Your task to perform on an android device: Go to settings Image 0: 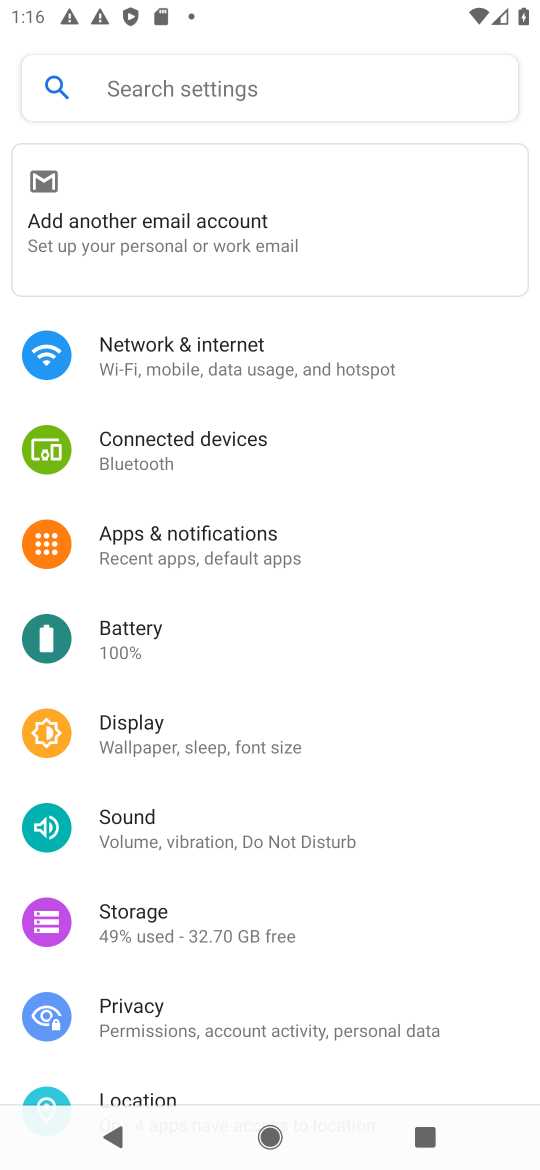
Step 0: drag from (305, 929) to (340, 452)
Your task to perform on an android device: Go to settings Image 1: 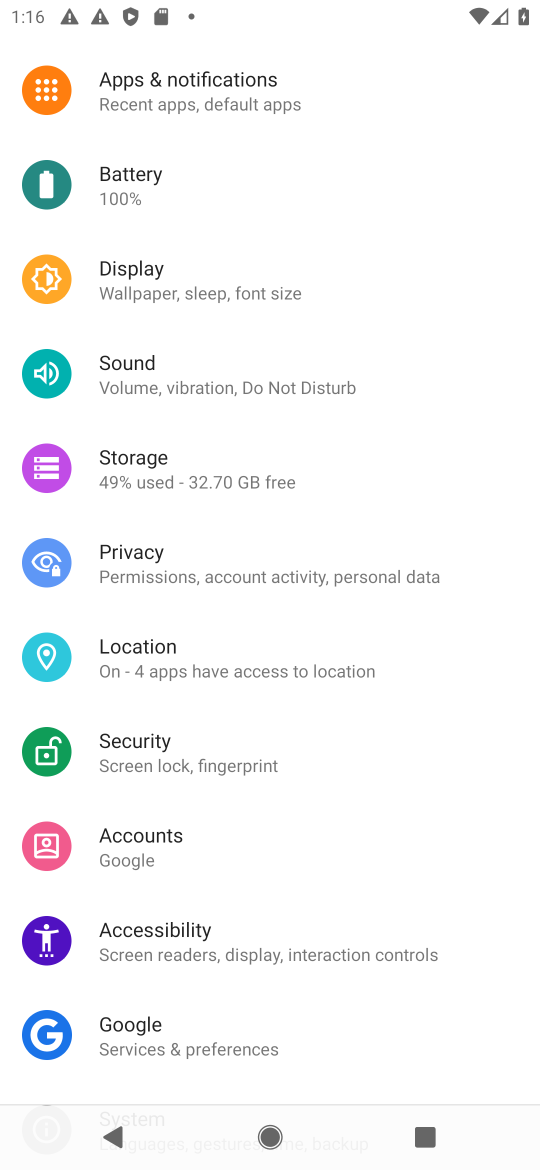
Step 1: task complete